Your task to perform on an android device: turn off notifications settings in the gmail app Image 0: 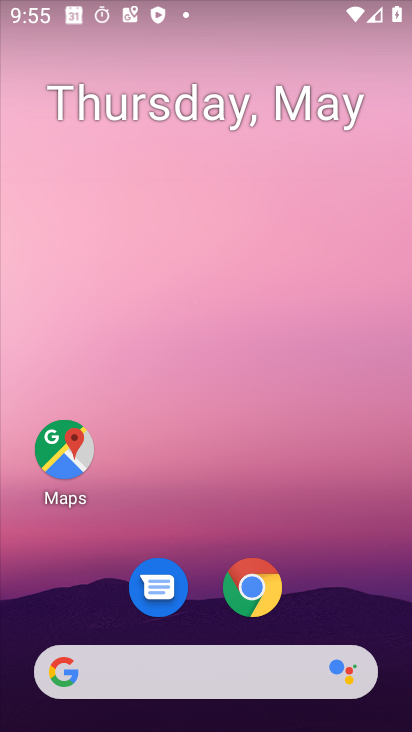
Step 0: drag from (362, 629) to (326, 41)
Your task to perform on an android device: turn off notifications settings in the gmail app Image 1: 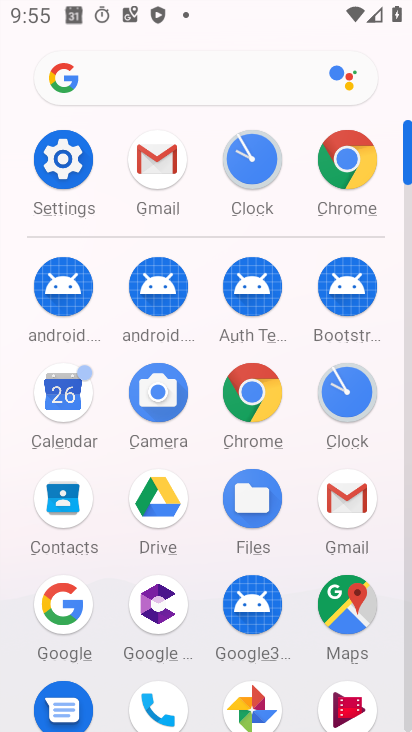
Step 1: click (156, 169)
Your task to perform on an android device: turn off notifications settings in the gmail app Image 2: 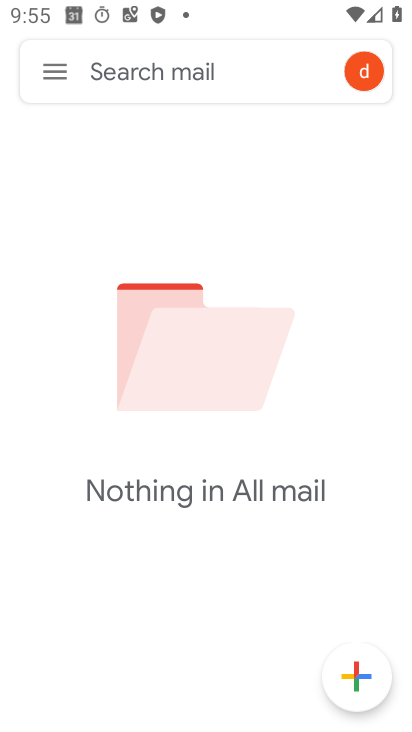
Step 2: click (61, 80)
Your task to perform on an android device: turn off notifications settings in the gmail app Image 3: 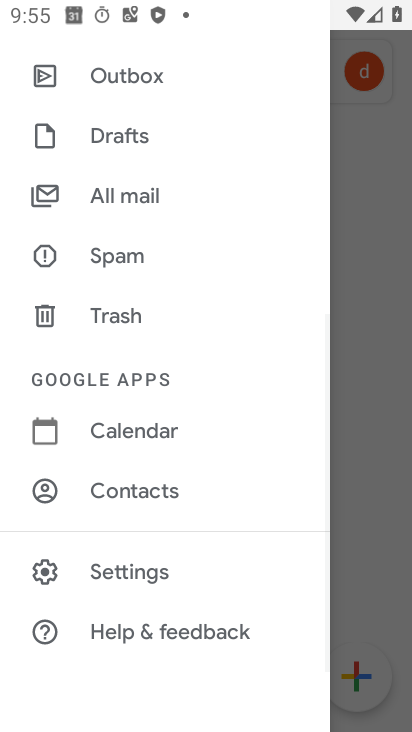
Step 3: click (106, 580)
Your task to perform on an android device: turn off notifications settings in the gmail app Image 4: 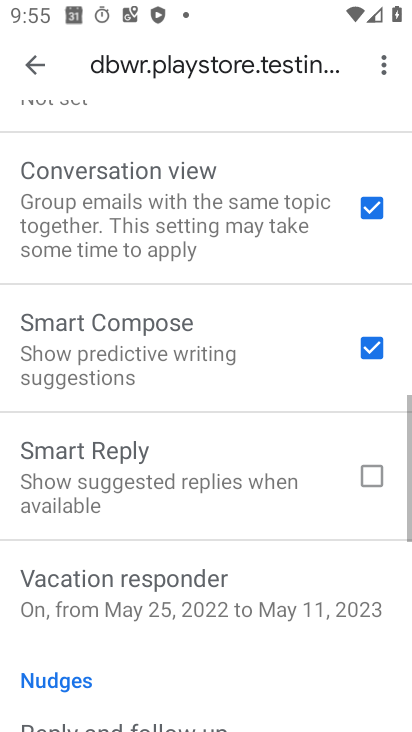
Step 4: click (32, 65)
Your task to perform on an android device: turn off notifications settings in the gmail app Image 5: 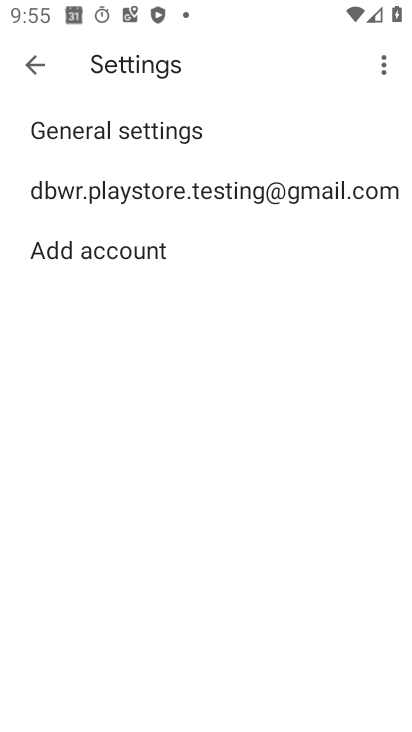
Step 5: click (59, 137)
Your task to perform on an android device: turn off notifications settings in the gmail app Image 6: 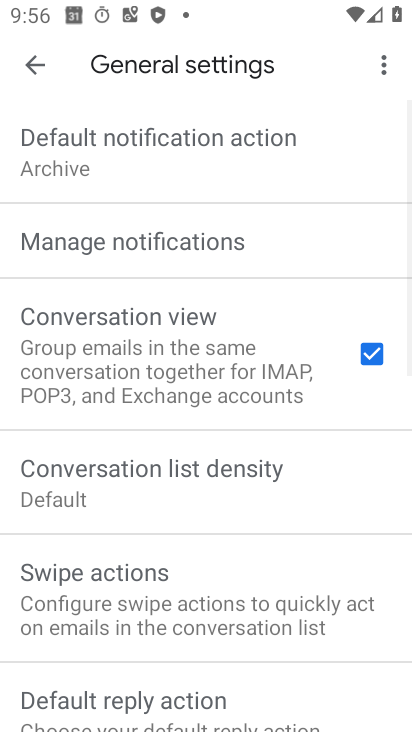
Step 6: click (121, 230)
Your task to perform on an android device: turn off notifications settings in the gmail app Image 7: 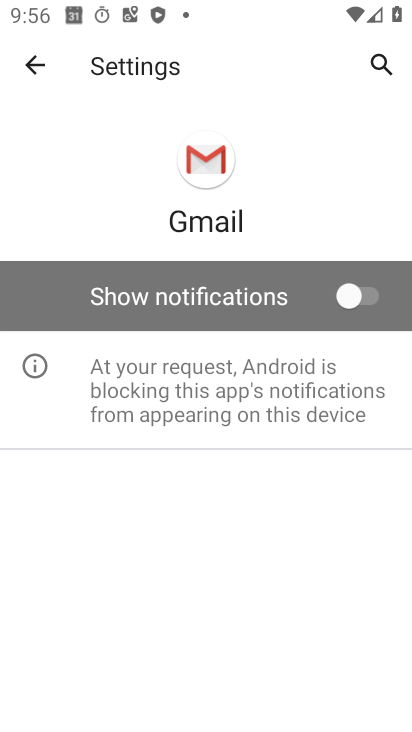
Step 7: task complete